Your task to perform on an android device: Is it going to rain tomorrow? Image 0: 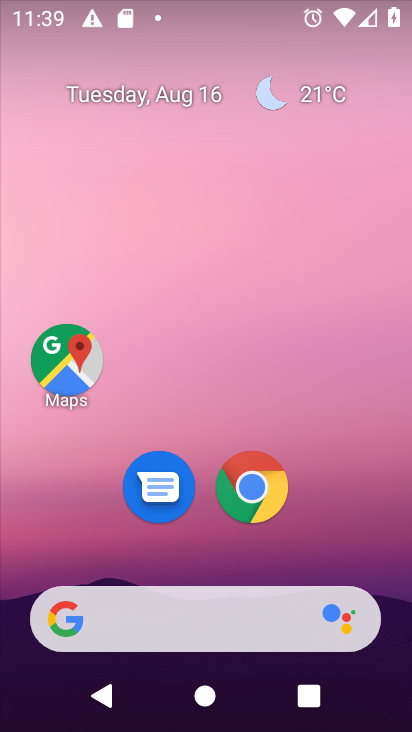
Step 0: click (171, 602)
Your task to perform on an android device: Is it going to rain tomorrow? Image 1: 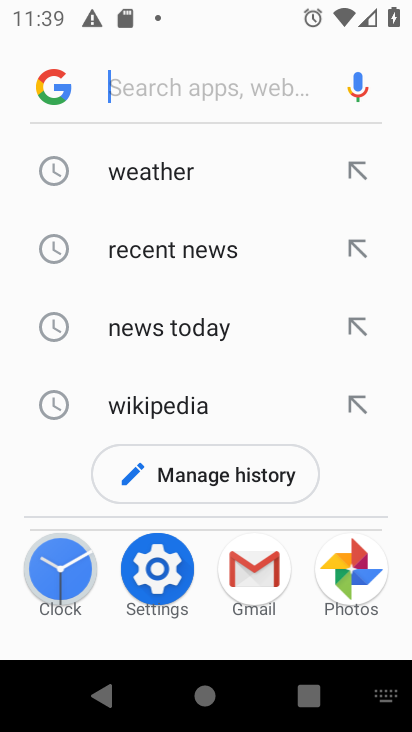
Step 1: click (171, 160)
Your task to perform on an android device: Is it going to rain tomorrow? Image 2: 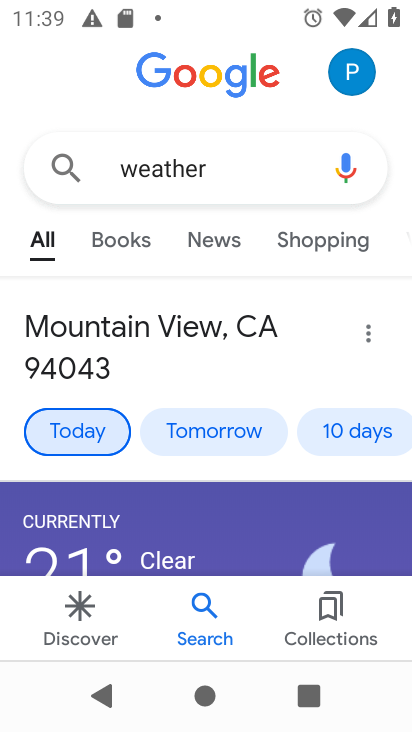
Step 2: click (213, 421)
Your task to perform on an android device: Is it going to rain tomorrow? Image 3: 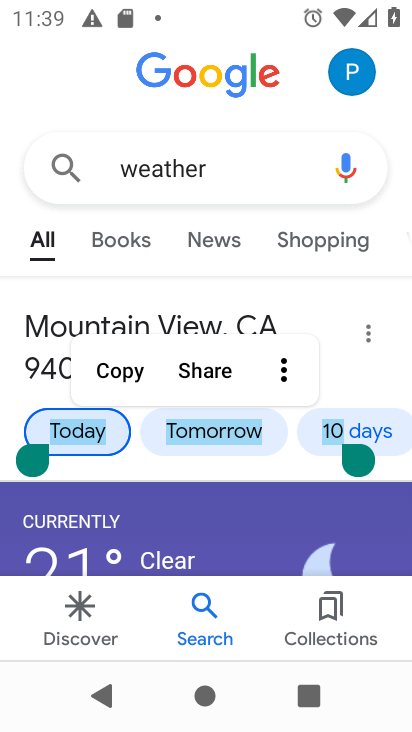
Step 3: click (187, 501)
Your task to perform on an android device: Is it going to rain tomorrow? Image 4: 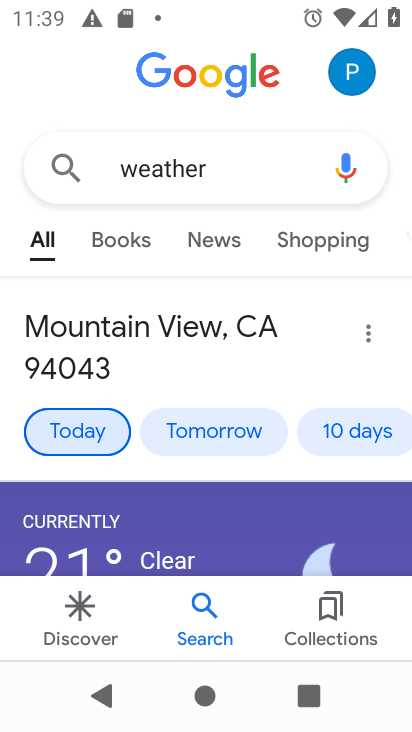
Step 4: click (213, 421)
Your task to perform on an android device: Is it going to rain tomorrow? Image 5: 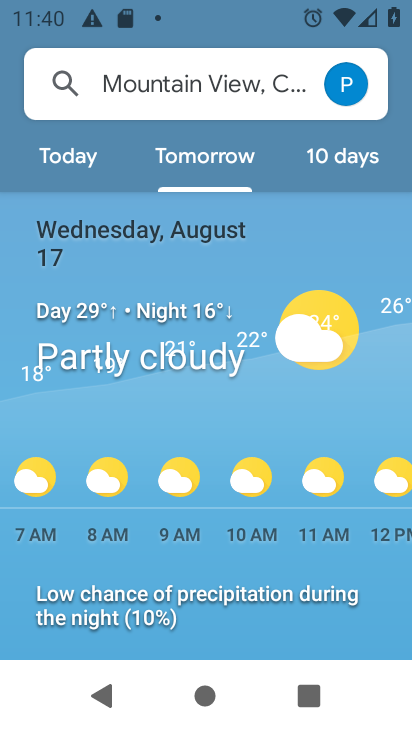
Step 5: task complete